Your task to perform on an android device: Open Chrome and go to settings Image 0: 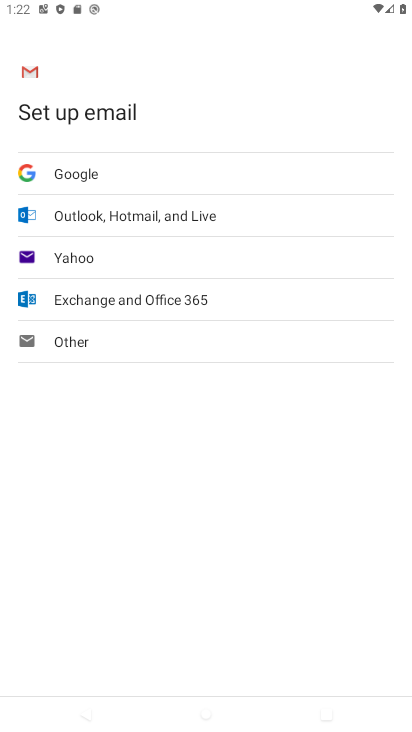
Step 0: drag from (225, 564) to (287, 227)
Your task to perform on an android device: Open Chrome and go to settings Image 1: 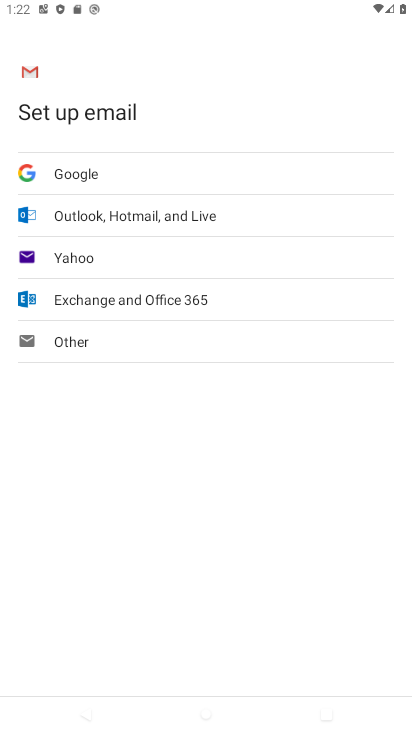
Step 1: press home button
Your task to perform on an android device: Open Chrome and go to settings Image 2: 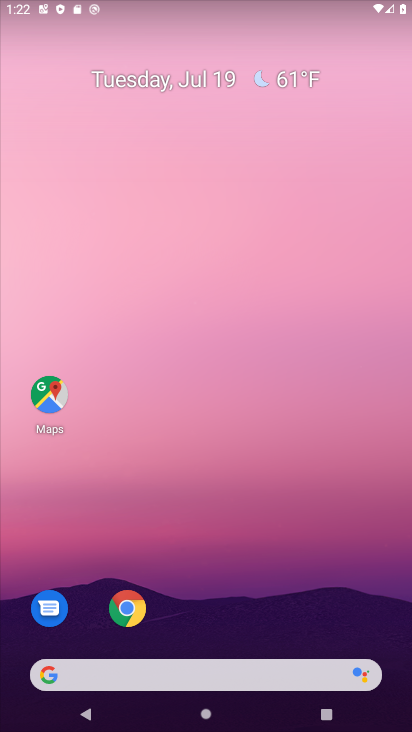
Step 2: drag from (263, 536) to (211, 96)
Your task to perform on an android device: Open Chrome and go to settings Image 3: 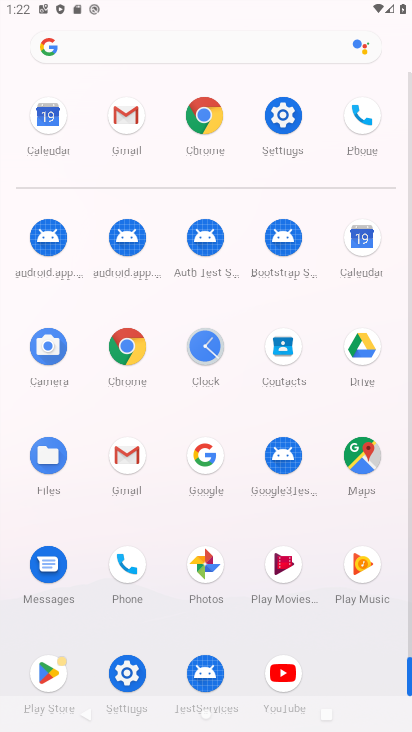
Step 3: click (208, 105)
Your task to perform on an android device: Open Chrome and go to settings Image 4: 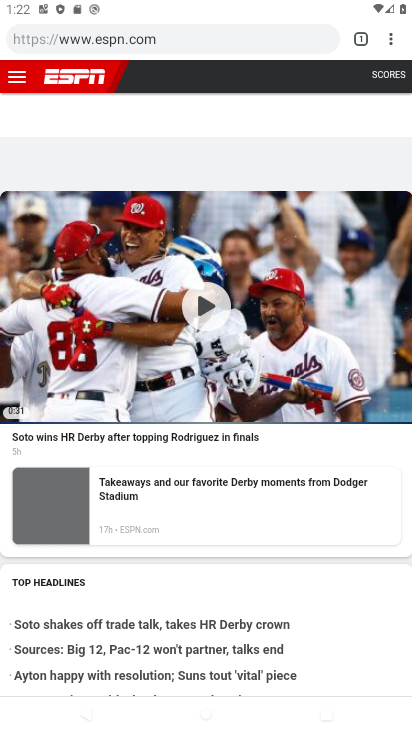
Step 4: task complete